Your task to perform on an android device: Open CNN.com Image 0: 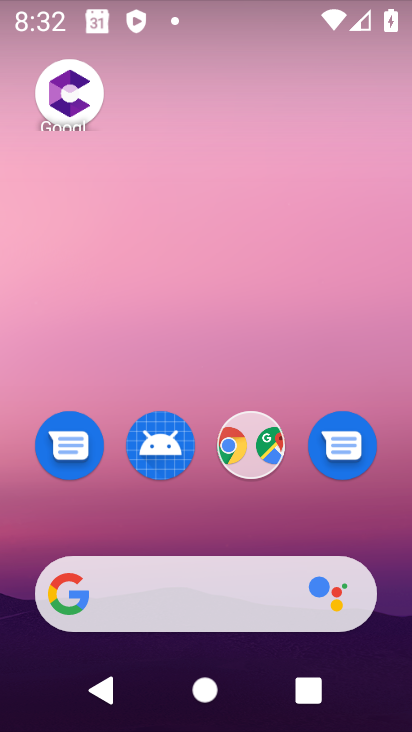
Step 0: drag from (222, 521) to (194, 128)
Your task to perform on an android device: Open CNN.com Image 1: 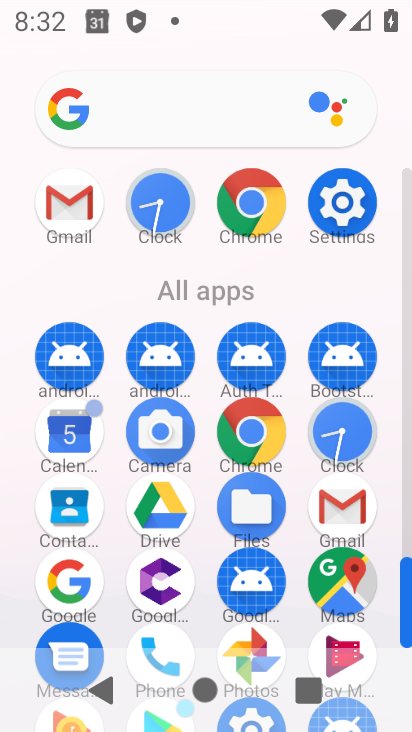
Step 1: click (237, 185)
Your task to perform on an android device: Open CNN.com Image 2: 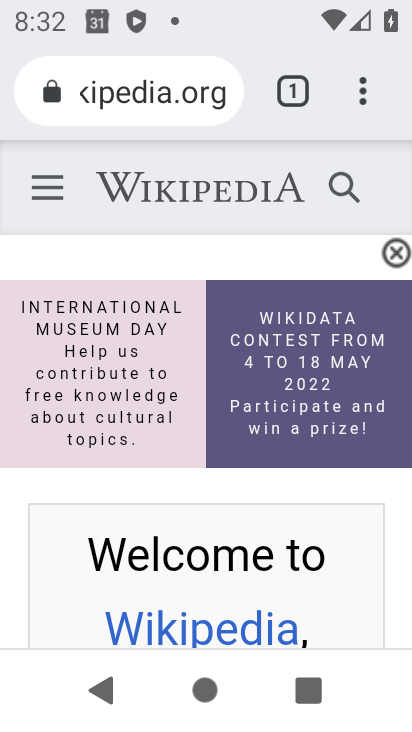
Step 2: click (290, 84)
Your task to perform on an android device: Open CNN.com Image 3: 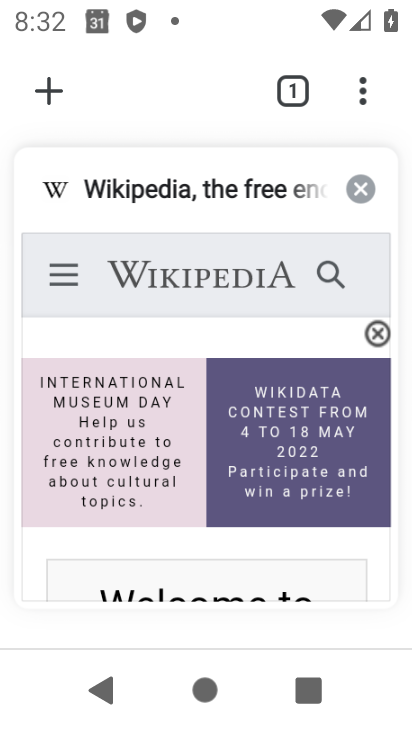
Step 3: click (52, 82)
Your task to perform on an android device: Open CNN.com Image 4: 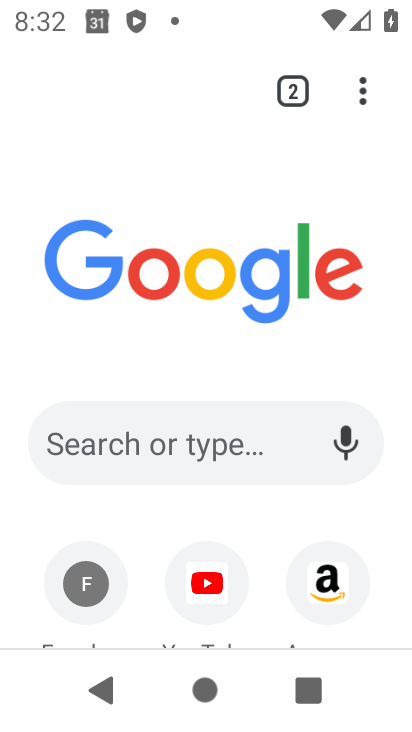
Step 4: drag from (250, 514) to (213, 225)
Your task to perform on an android device: Open CNN.com Image 5: 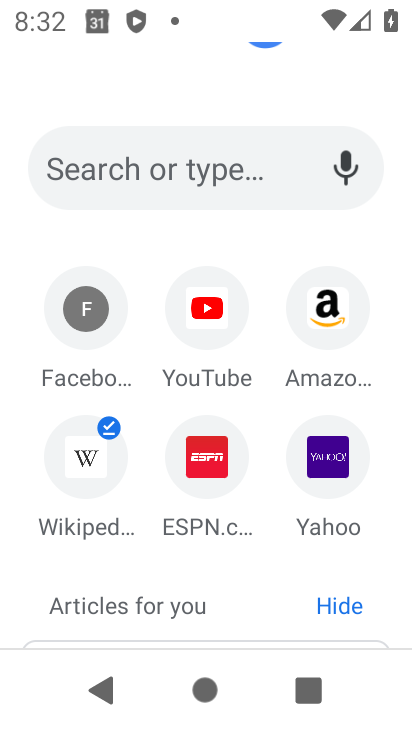
Step 5: click (149, 177)
Your task to perform on an android device: Open CNN.com Image 6: 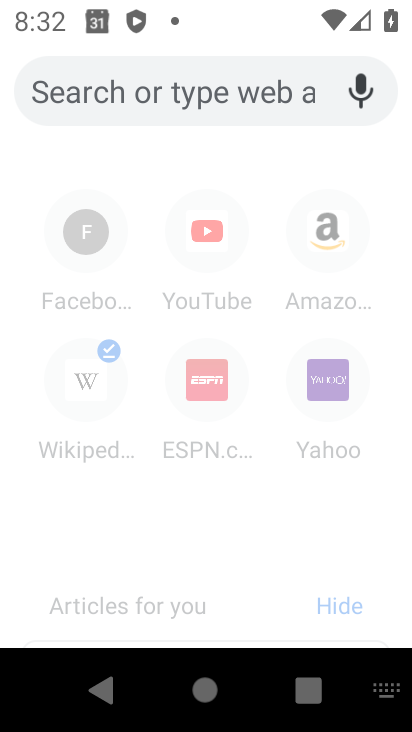
Step 6: type "cnn.com"
Your task to perform on an android device: Open CNN.com Image 7: 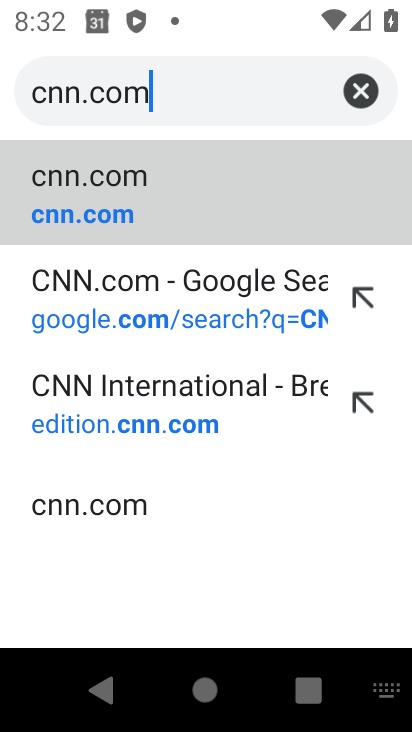
Step 7: click (325, 202)
Your task to perform on an android device: Open CNN.com Image 8: 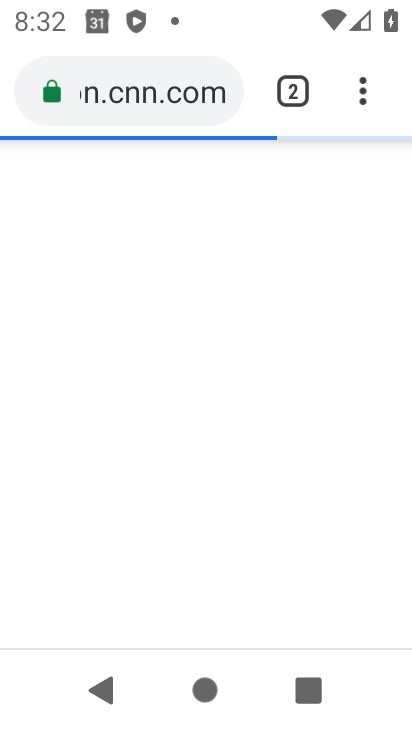
Step 8: task complete